Your task to perform on an android device: install app "TextNow: Call + Text Unlimited" Image 0: 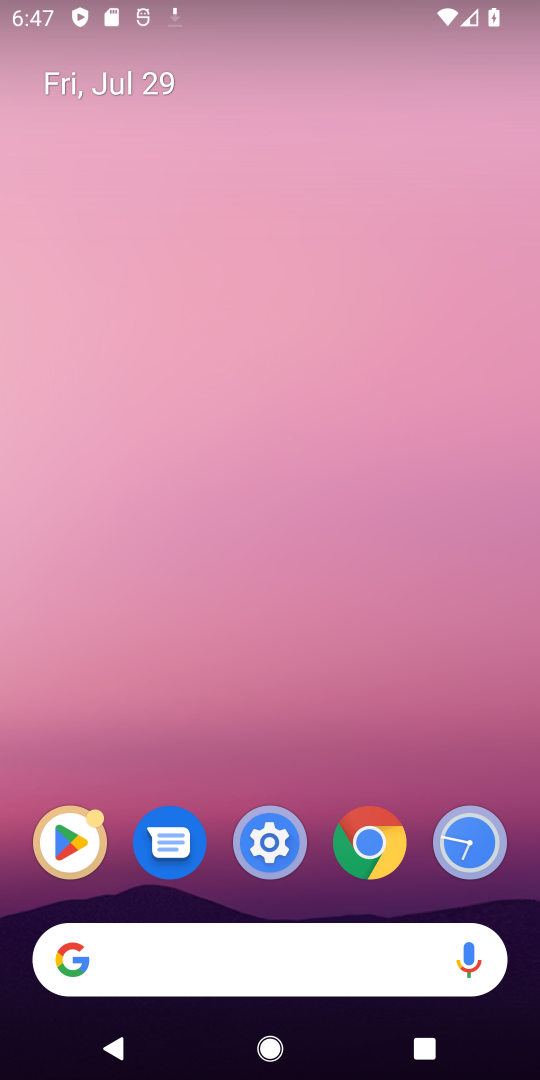
Step 0: drag from (373, 900) to (315, 342)
Your task to perform on an android device: install app "TextNow: Call + Text Unlimited" Image 1: 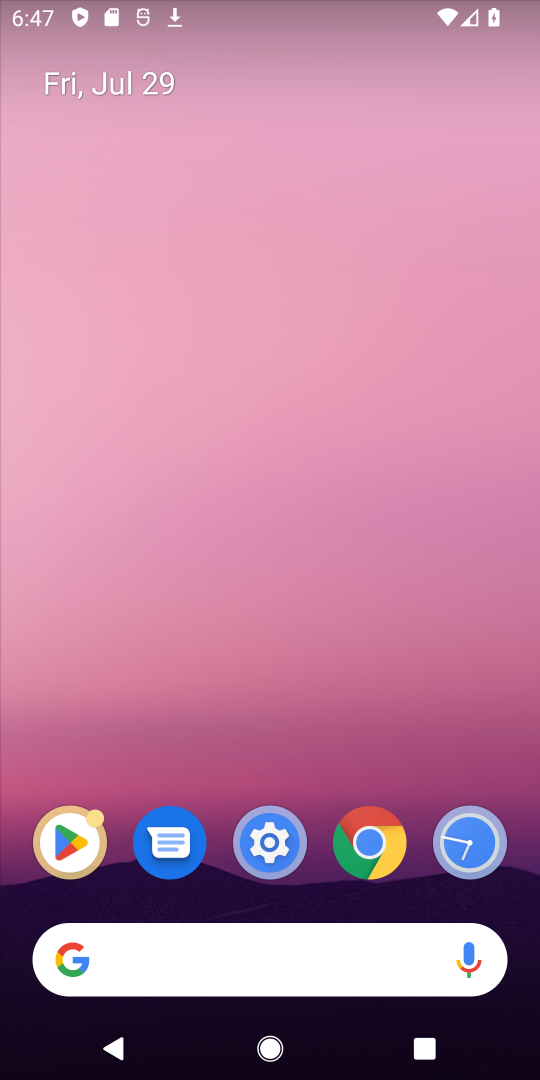
Step 1: click (337, 321)
Your task to perform on an android device: install app "TextNow: Call + Text Unlimited" Image 2: 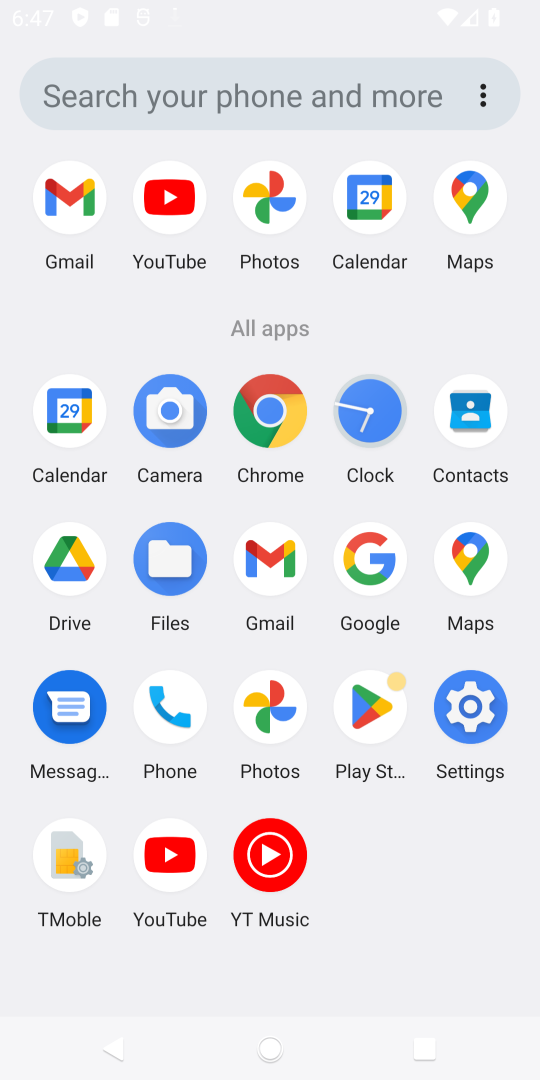
Step 2: drag from (292, 798) to (211, 218)
Your task to perform on an android device: install app "TextNow: Call + Text Unlimited" Image 3: 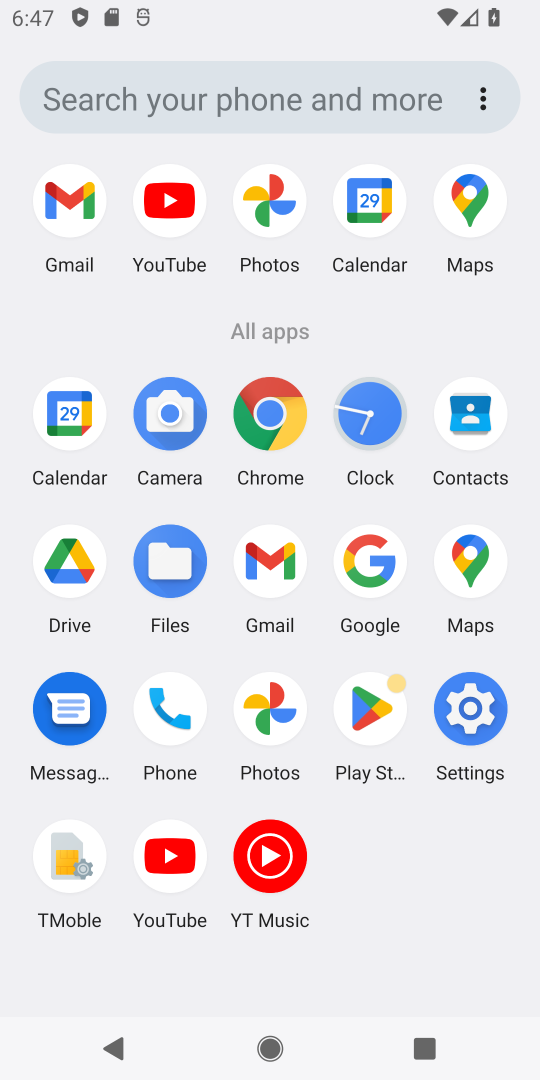
Step 3: click (356, 697)
Your task to perform on an android device: install app "TextNow: Call + Text Unlimited" Image 4: 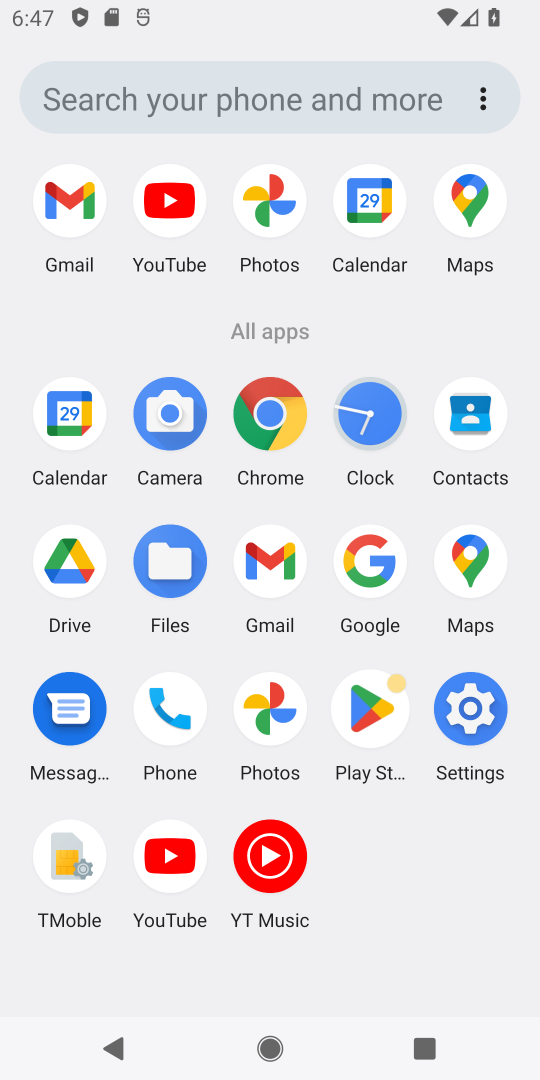
Step 4: click (356, 697)
Your task to perform on an android device: install app "TextNow: Call + Text Unlimited" Image 5: 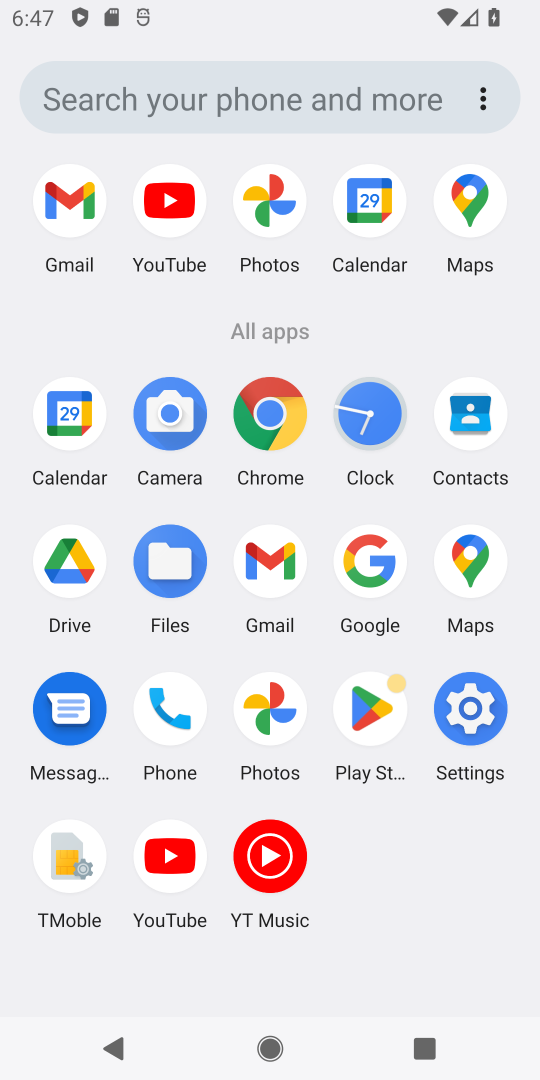
Step 5: click (362, 701)
Your task to perform on an android device: install app "TextNow: Call + Text Unlimited" Image 6: 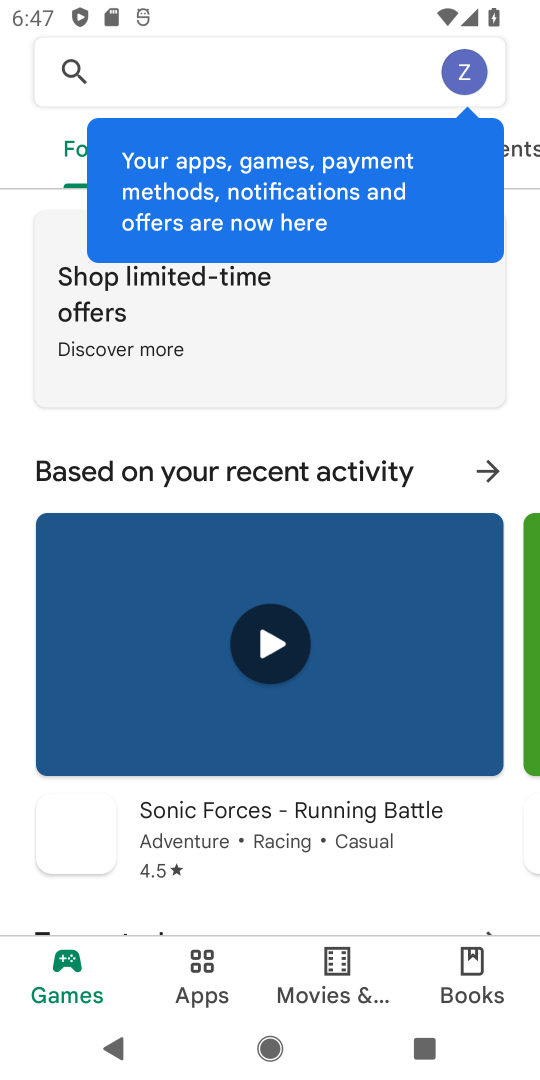
Step 6: click (138, 65)
Your task to perform on an android device: install app "TextNow: Call + Text Unlimited" Image 7: 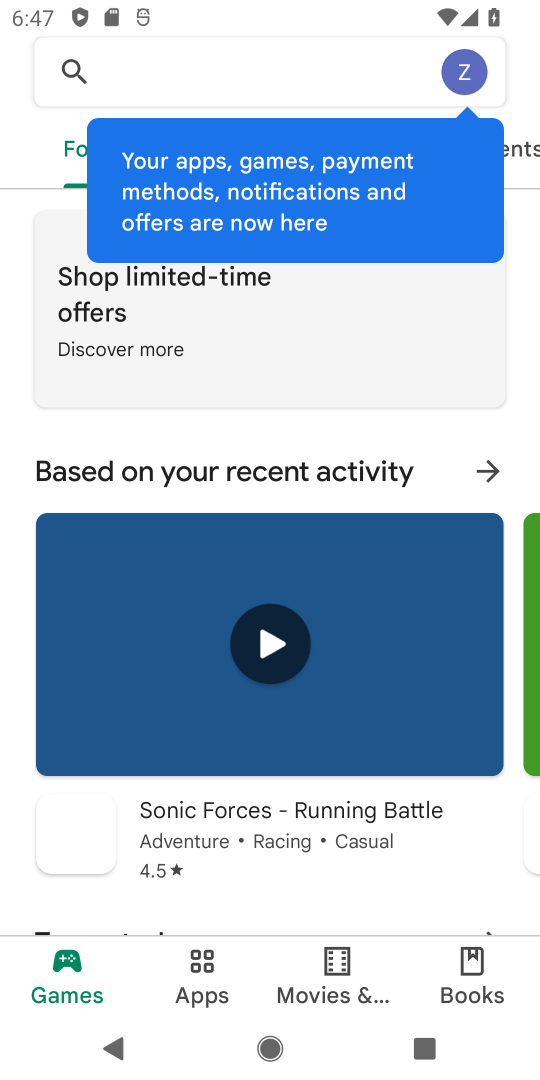
Step 7: click (138, 65)
Your task to perform on an android device: install app "TextNow: Call + Text Unlimited" Image 8: 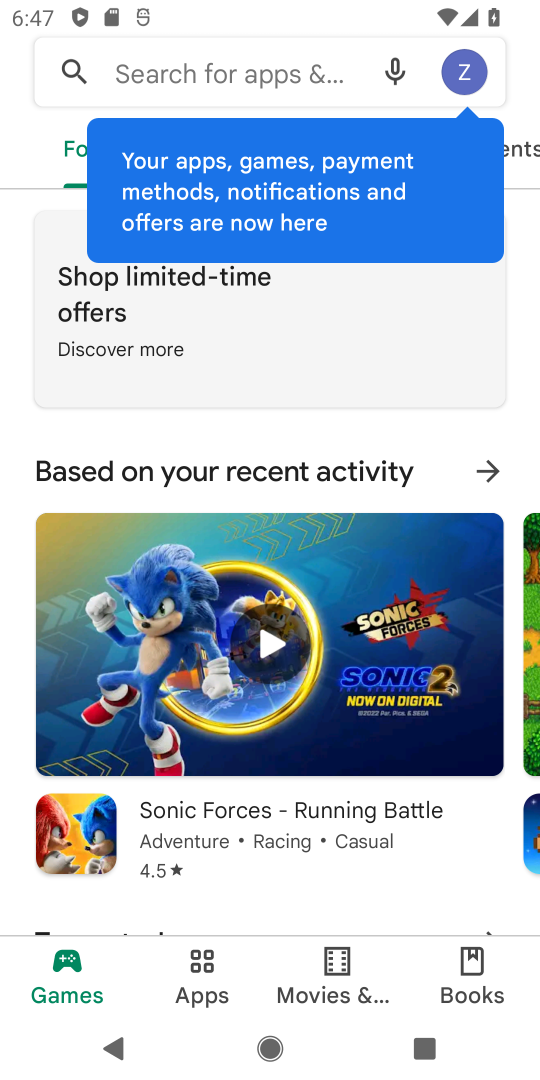
Step 8: click (138, 63)
Your task to perform on an android device: install app "TextNow: Call + Text Unlimited" Image 9: 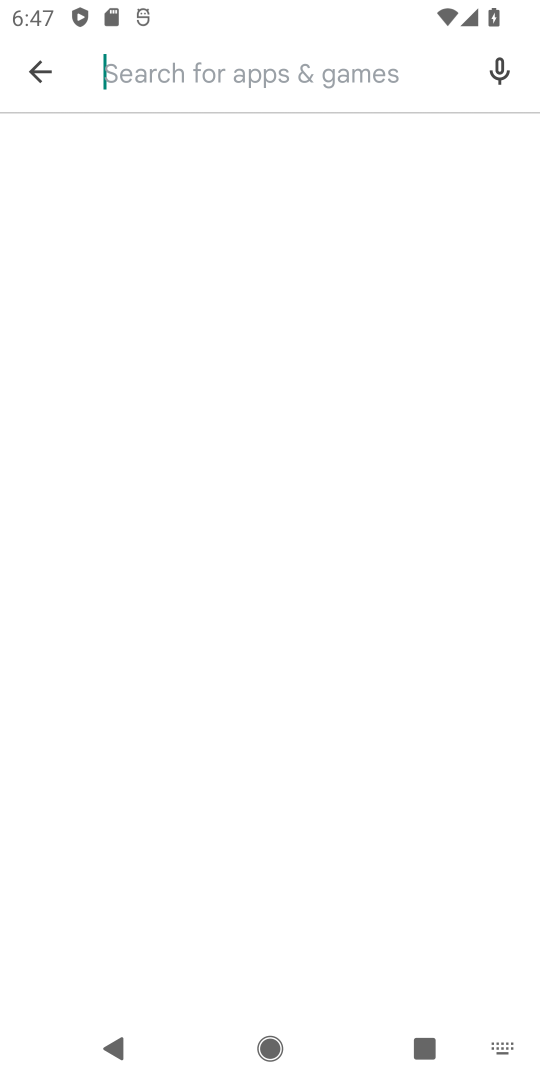
Step 9: click (138, 63)
Your task to perform on an android device: install app "TextNow: Call + Text Unlimited" Image 10: 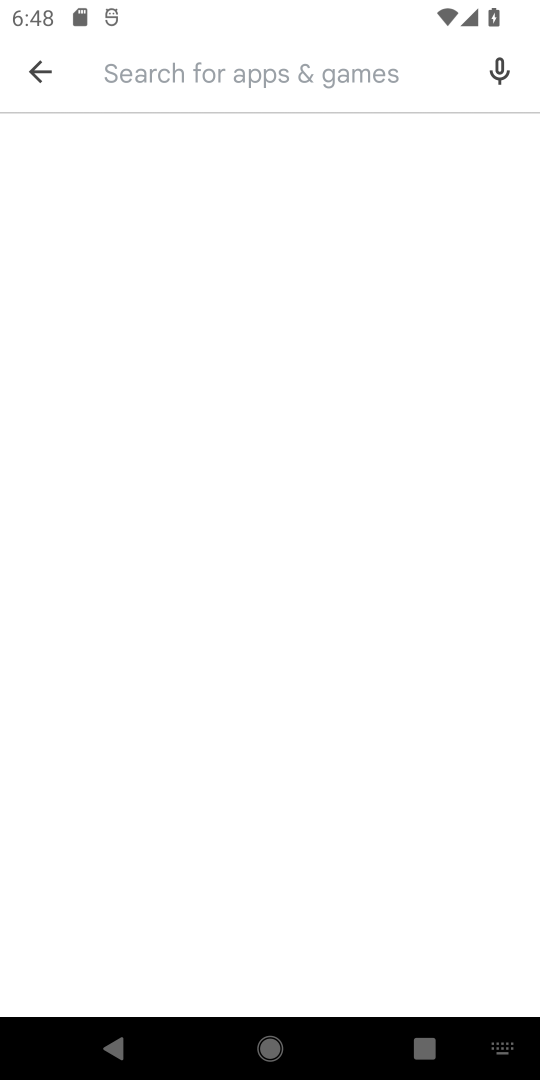
Step 10: type "TextNow :Call + Text Unlimited"
Your task to perform on an android device: install app "TextNow: Call + Text Unlimited" Image 11: 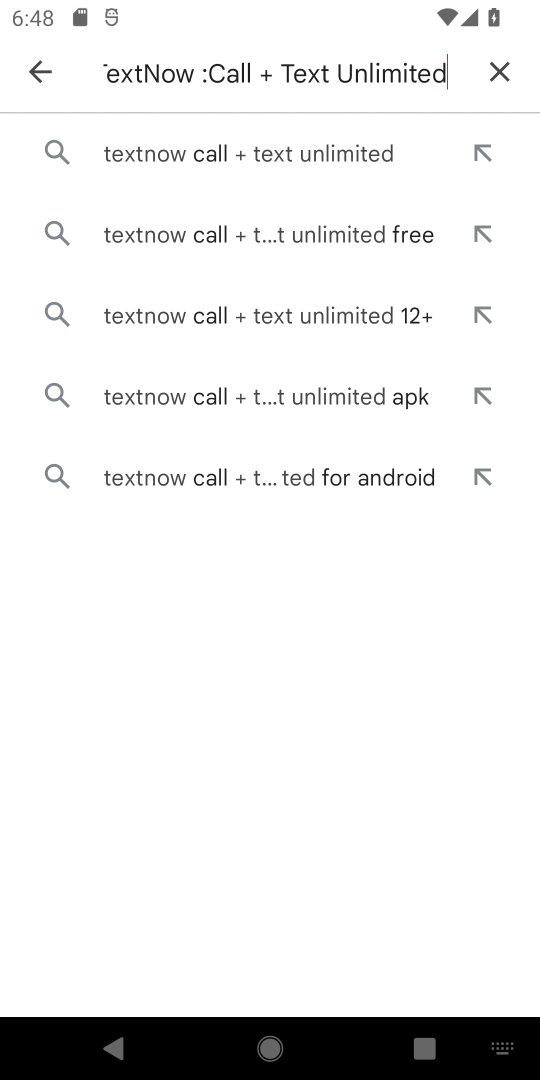
Step 11: click (289, 157)
Your task to perform on an android device: install app "TextNow: Call + Text Unlimited" Image 12: 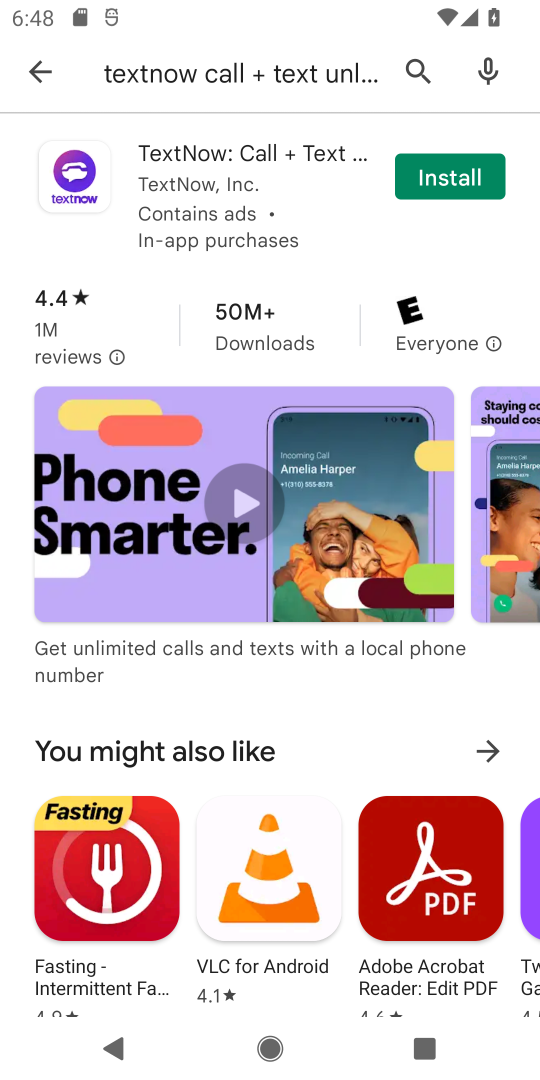
Step 12: click (450, 171)
Your task to perform on an android device: install app "TextNow: Call + Text Unlimited" Image 13: 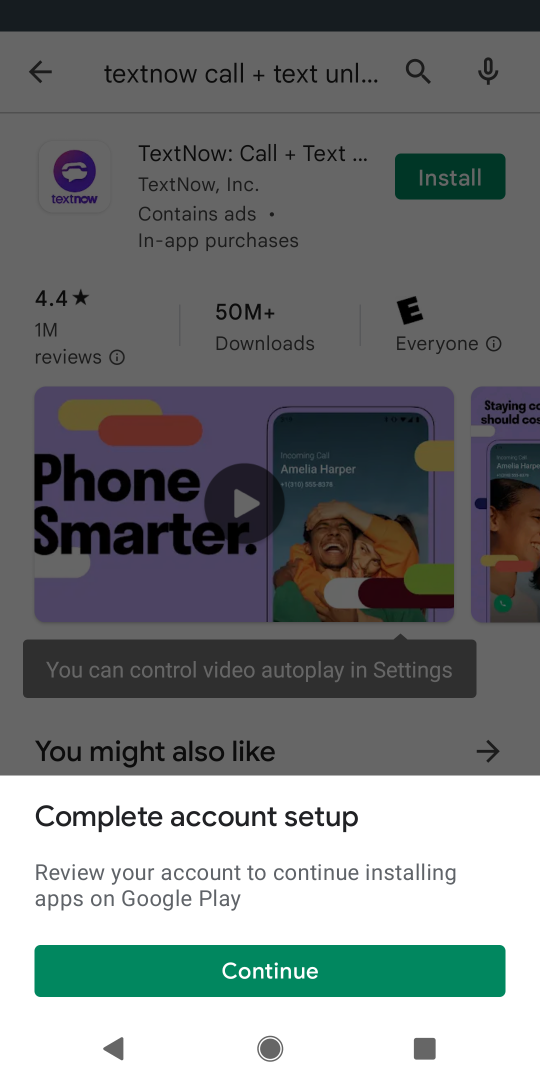
Step 13: click (301, 978)
Your task to perform on an android device: install app "TextNow: Call + Text Unlimited" Image 14: 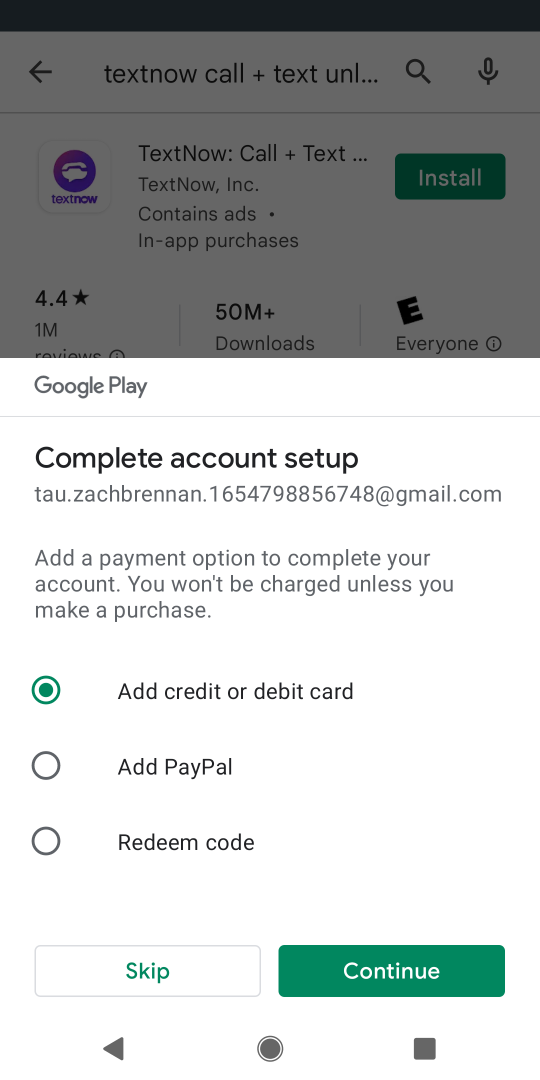
Step 14: click (220, 987)
Your task to perform on an android device: install app "TextNow: Call + Text Unlimited" Image 15: 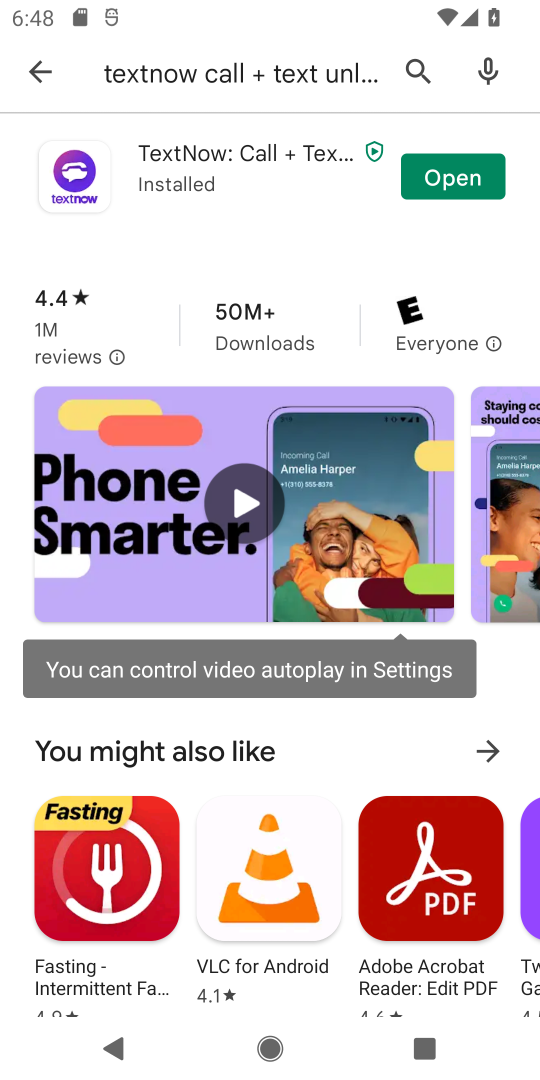
Step 15: click (457, 191)
Your task to perform on an android device: install app "TextNow: Call + Text Unlimited" Image 16: 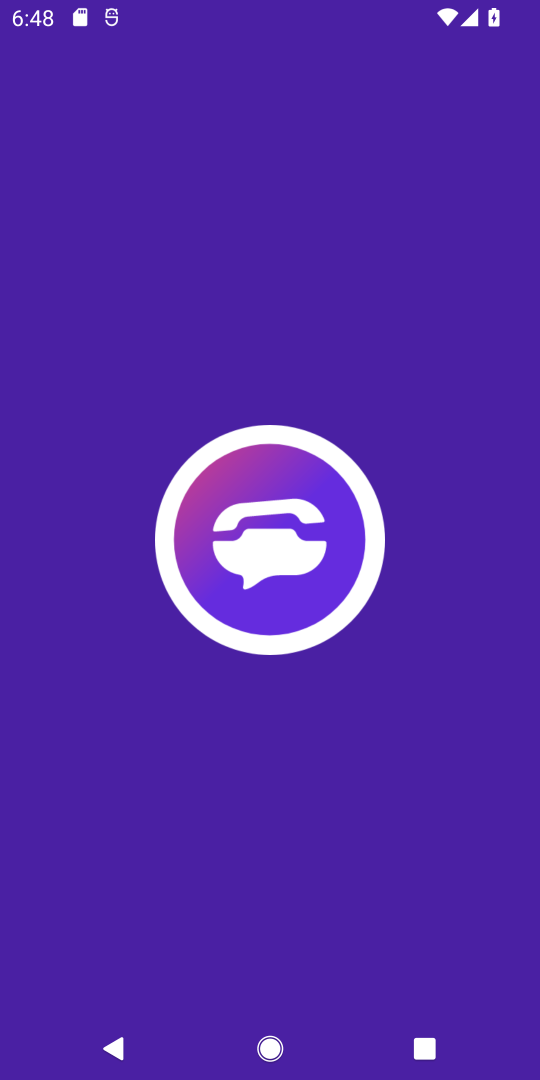
Step 16: task complete